Your task to perform on an android device: Open the web browser Image 0: 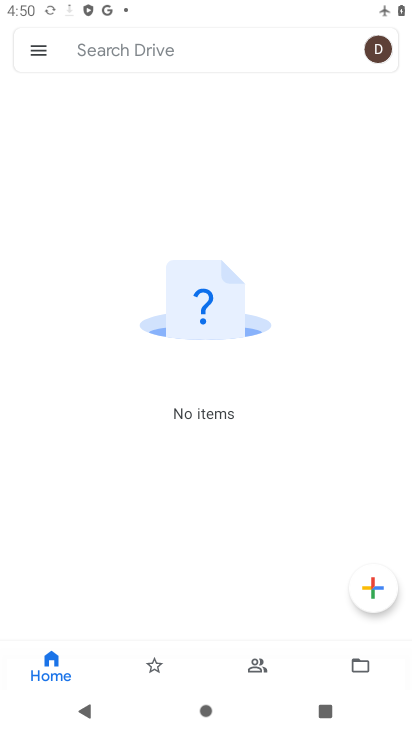
Step 0: press home button
Your task to perform on an android device: Open the web browser Image 1: 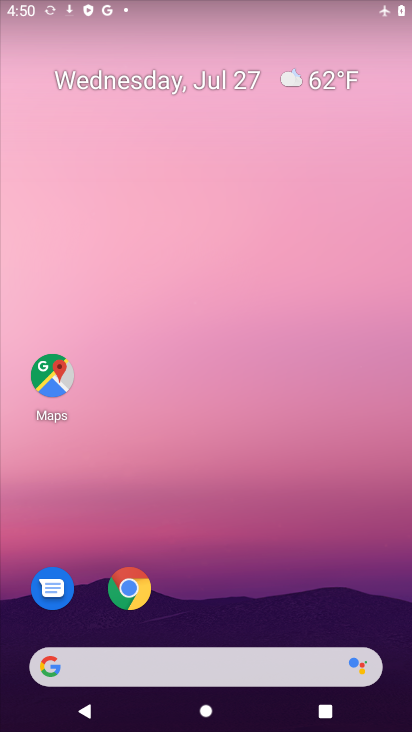
Step 1: click (124, 581)
Your task to perform on an android device: Open the web browser Image 2: 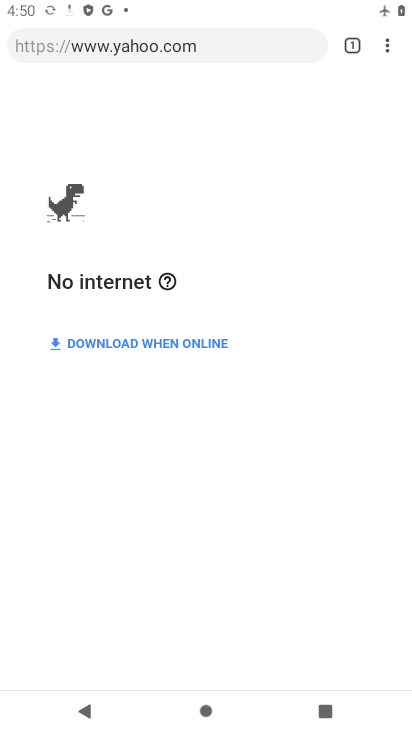
Step 2: task complete